Your task to perform on an android device: Open my contact list Image 0: 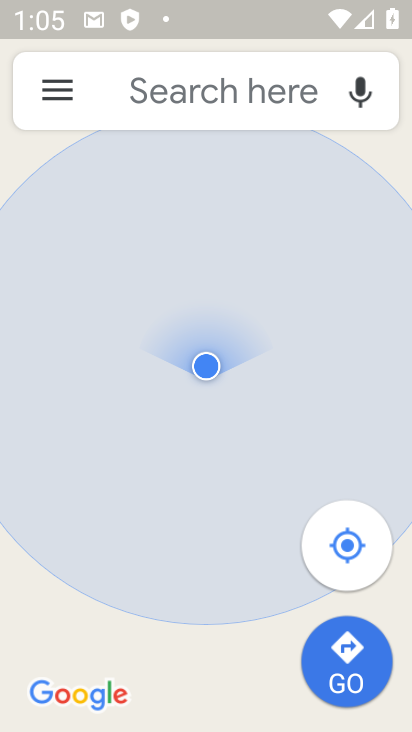
Step 0: press home button
Your task to perform on an android device: Open my contact list Image 1: 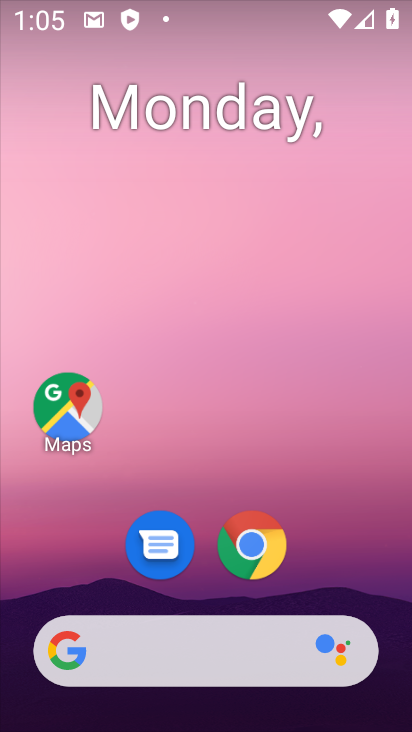
Step 1: drag from (226, 627) to (220, 109)
Your task to perform on an android device: Open my contact list Image 2: 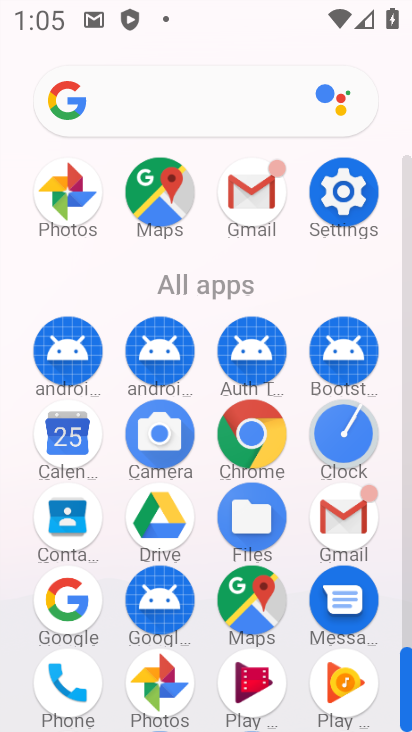
Step 2: click (63, 516)
Your task to perform on an android device: Open my contact list Image 3: 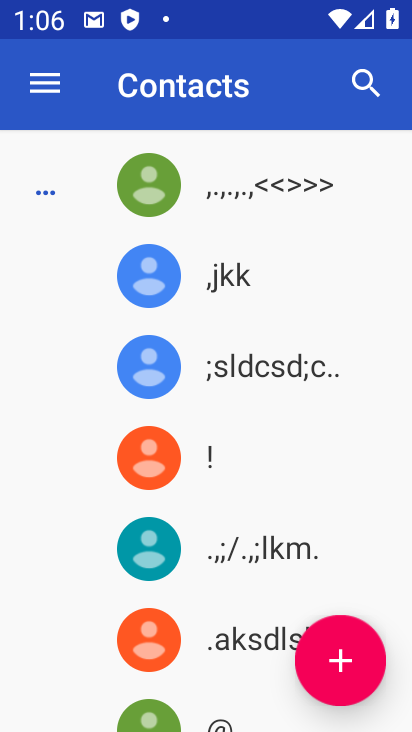
Step 3: task complete